Your task to perform on an android device: toggle javascript in the chrome app Image 0: 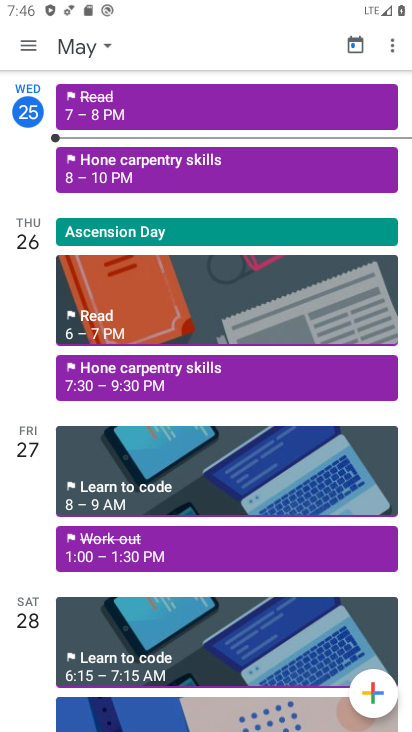
Step 0: press home button
Your task to perform on an android device: toggle javascript in the chrome app Image 1: 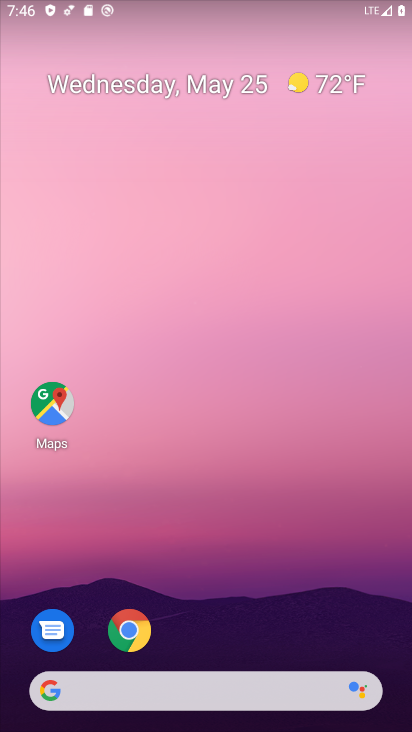
Step 1: click (135, 628)
Your task to perform on an android device: toggle javascript in the chrome app Image 2: 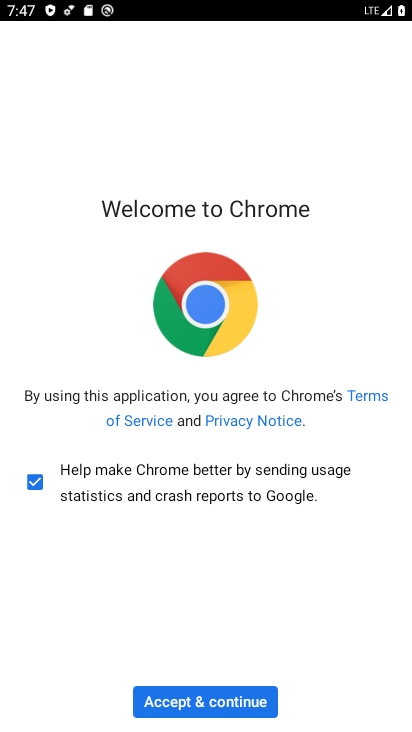
Step 2: click (201, 711)
Your task to perform on an android device: toggle javascript in the chrome app Image 3: 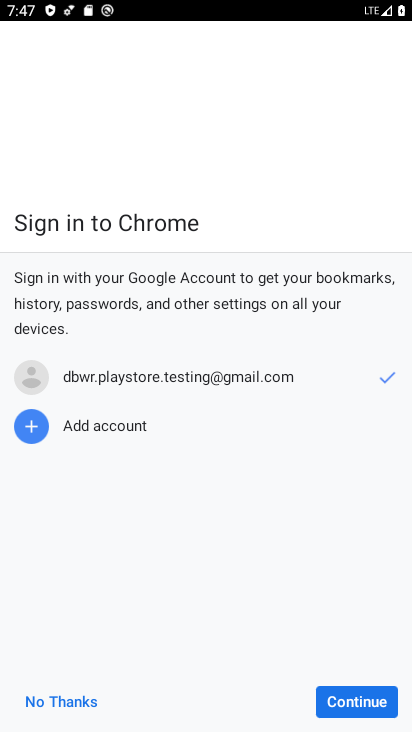
Step 3: click (340, 683)
Your task to perform on an android device: toggle javascript in the chrome app Image 4: 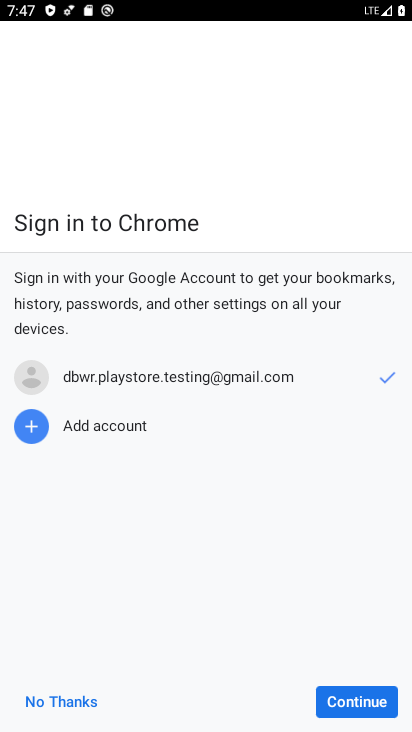
Step 4: click (342, 690)
Your task to perform on an android device: toggle javascript in the chrome app Image 5: 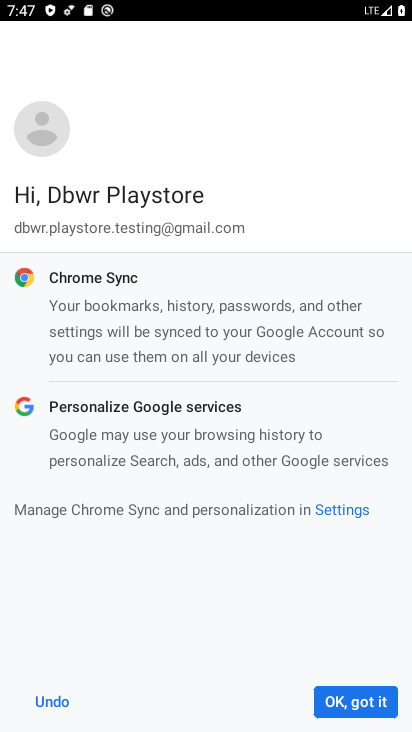
Step 5: click (361, 711)
Your task to perform on an android device: toggle javascript in the chrome app Image 6: 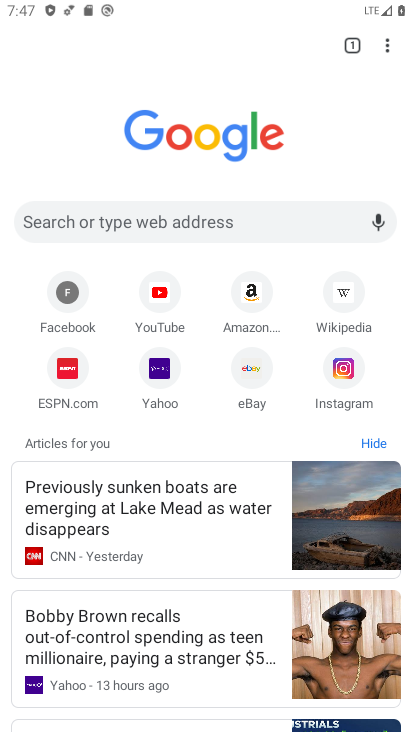
Step 6: drag from (385, 43) to (220, 366)
Your task to perform on an android device: toggle javascript in the chrome app Image 7: 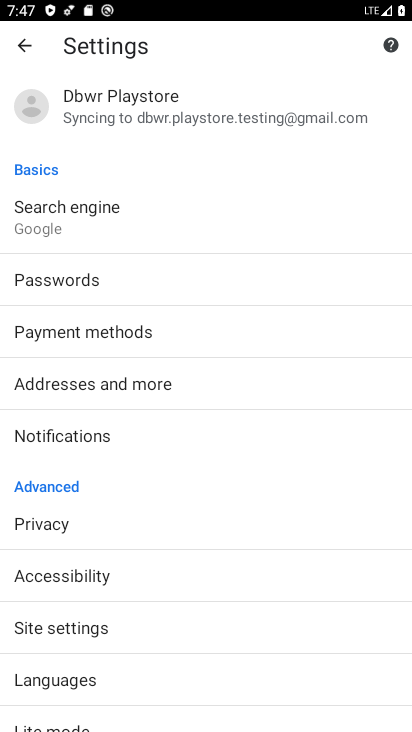
Step 7: click (137, 631)
Your task to perform on an android device: toggle javascript in the chrome app Image 8: 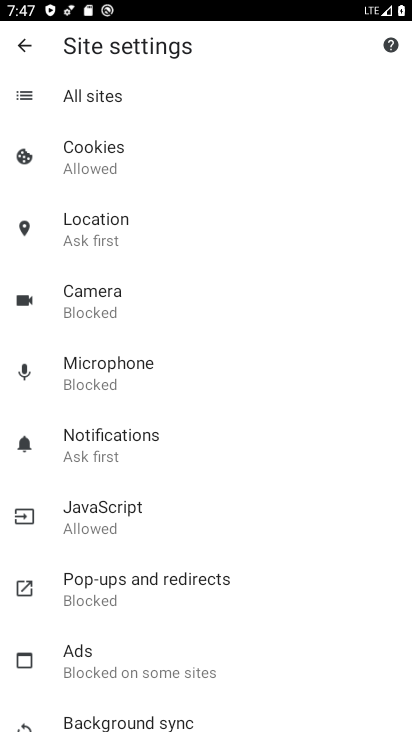
Step 8: click (165, 506)
Your task to perform on an android device: toggle javascript in the chrome app Image 9: 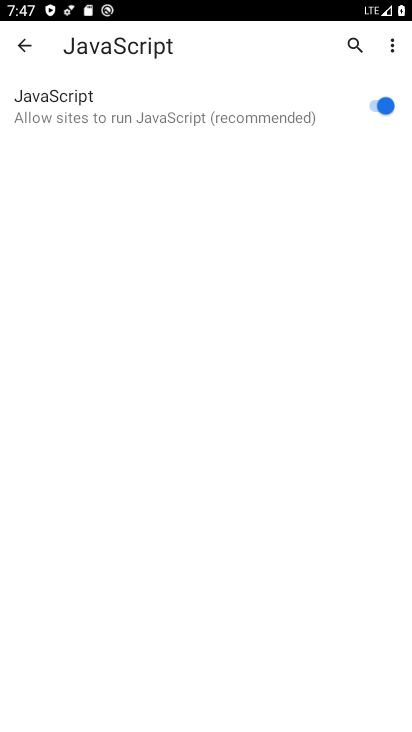
Step 9: click (377, 105)
Your task to perform on an android device: toggle javascript in the chrome app Image 10: 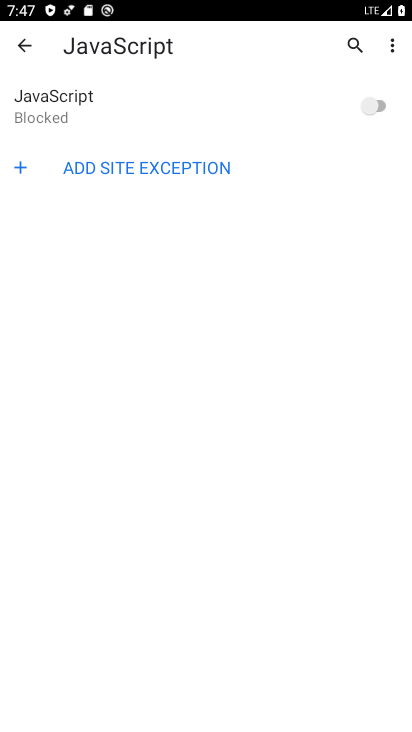
Step 10: task complete